Your task to perform on an android device: Go to wifi settings Image 0: 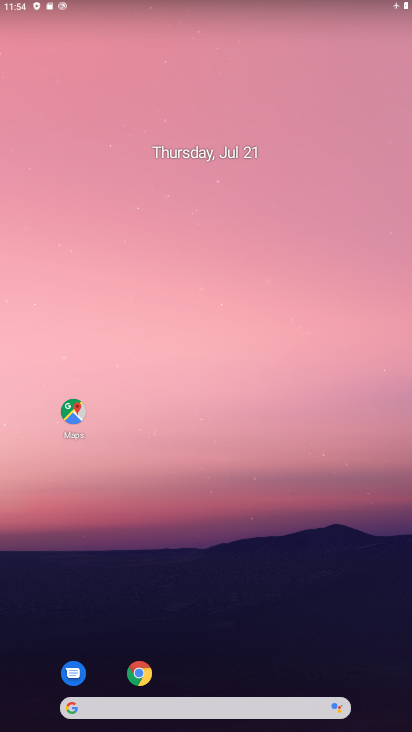
Step 0: drag from (225, 491) to (196, 52)
Your task to perform on an android device: Go to wifi settings Image 1: 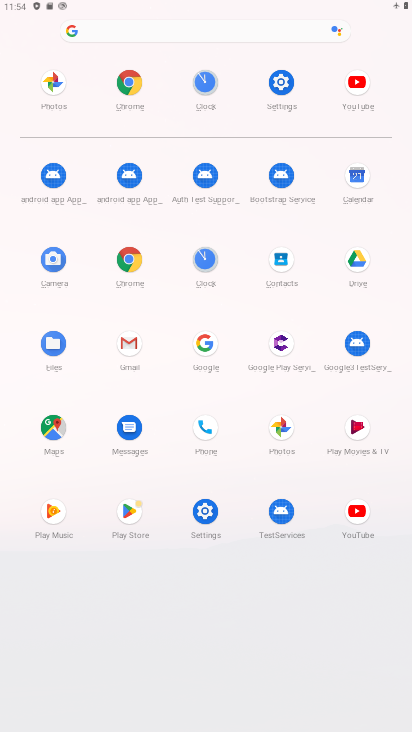
Step 1: click (205, 505)
Your task to perform on an android device: Go to wifi settings Image 2: 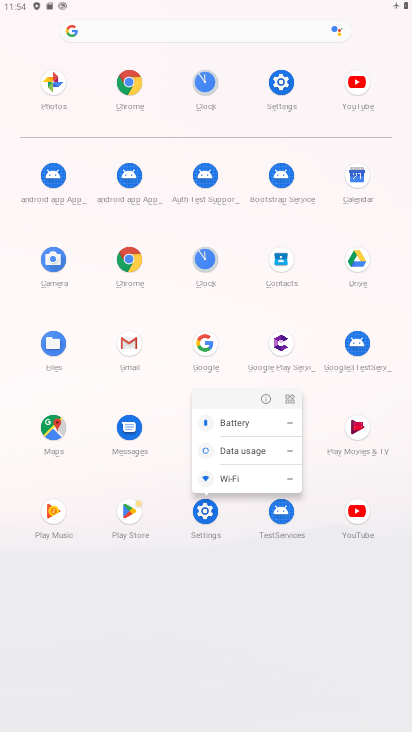
Step 2: click (268, 399)
Your task to perform on an android device: Go to wifi settings Image 3: 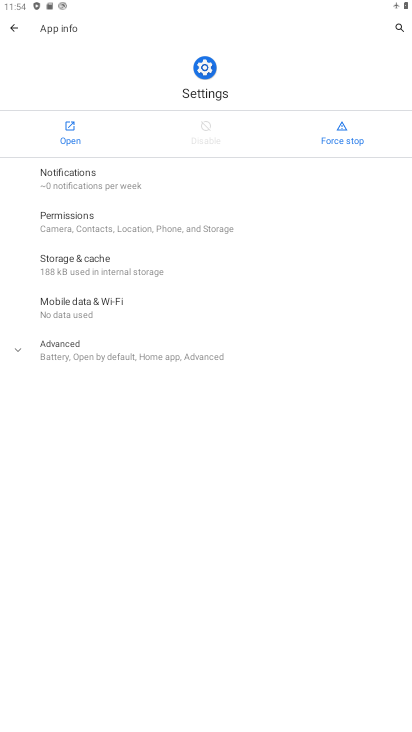
Step 3: click (60, 139)
Your task to perform on an android device: Go to wifi settings Image 4: 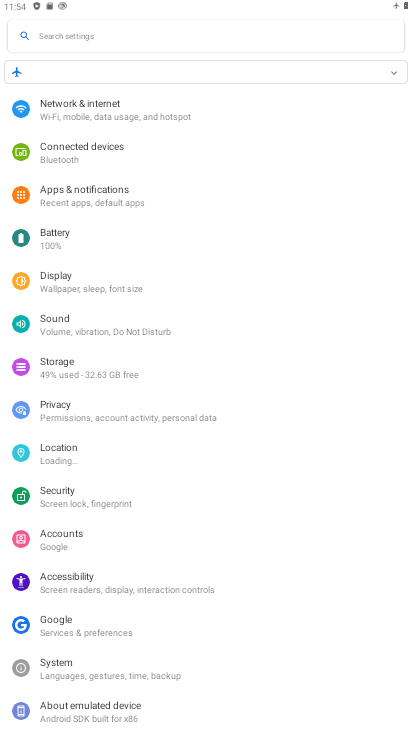
Step 4: click (87, 110)
Your task to perform on an android device: Go to wifi settings Image 5: 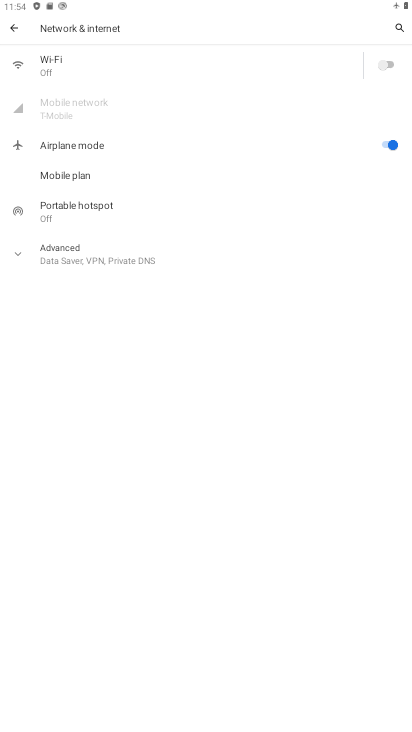
Step 5: drag from (213, 667) to (215, 263)
Your task to perform on an android device: Go to wifi settings Image 6: 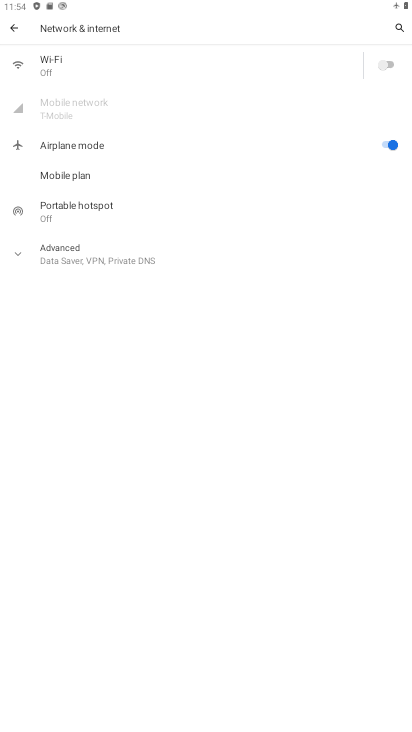
Step 6: click (69, 252)
Your task to perform on an android device: Go to wifi settings Image 7: 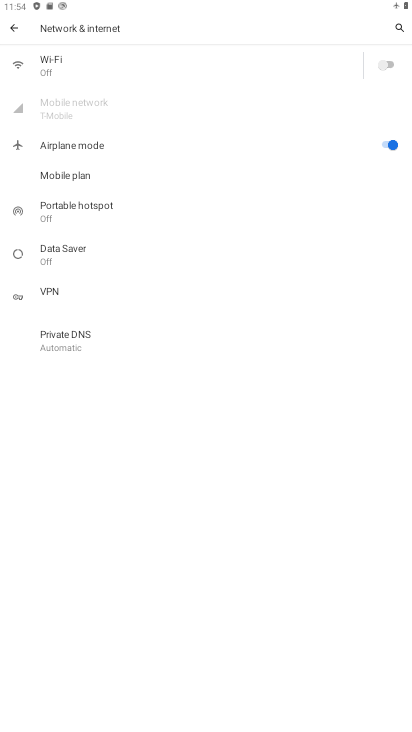
Step 7: click (57, 64)
Your task to perform on an android device: Go to wifi settings Image 8: 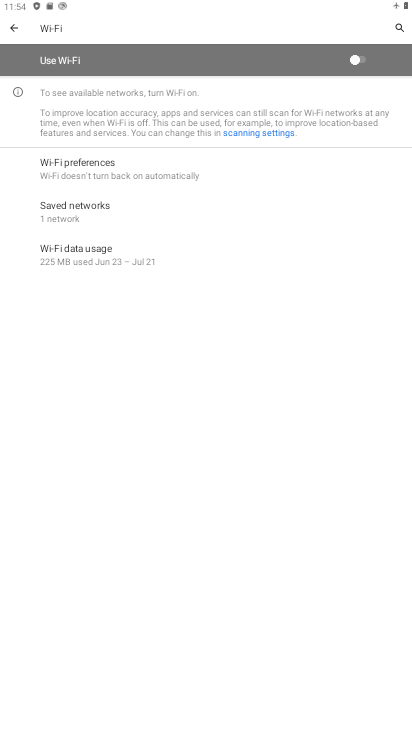
Step 8: task complete